Your task to perform on an android device: Do I have any events today? Image 0: 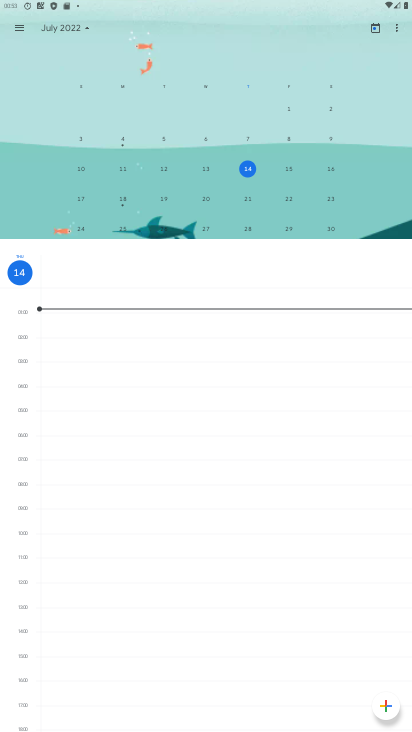
Step 0: click (11, 30)
Your task to perform on an android device: Do I have any events today? Image 1: 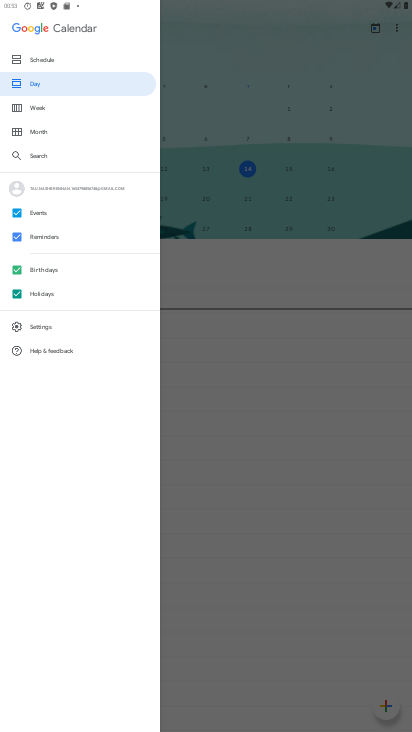
Step 1: click (52, 67)
Your task to perform on an android device: Do I have any events today? Image 2: 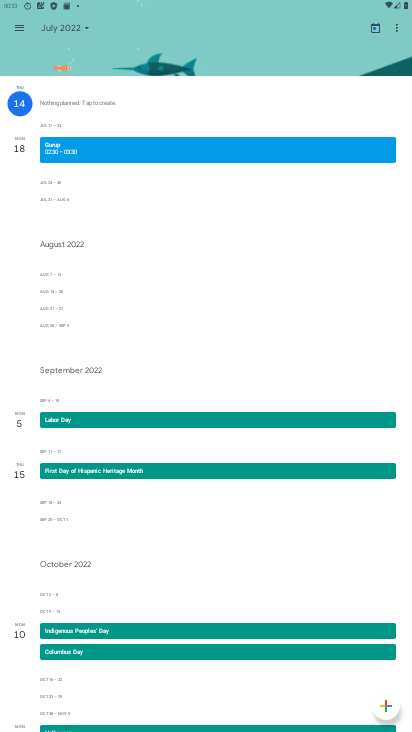
Step 2: click (94, 31)
Your task to perform on an android device: Do I have any events today? Image 3: 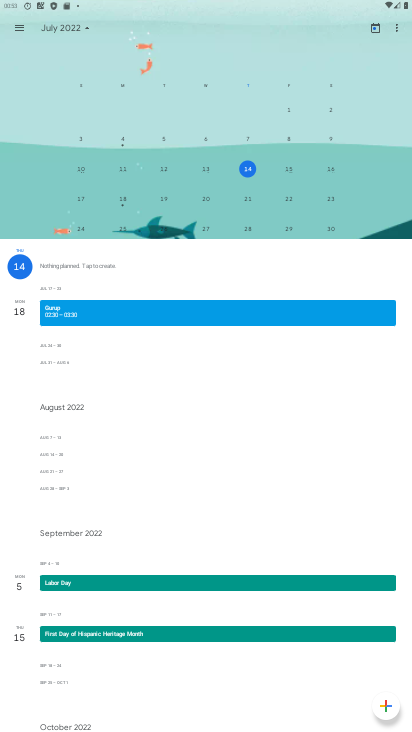
Step 3: task complete